Your task to perform on an android device: Go to Yahoo.com Image 0: 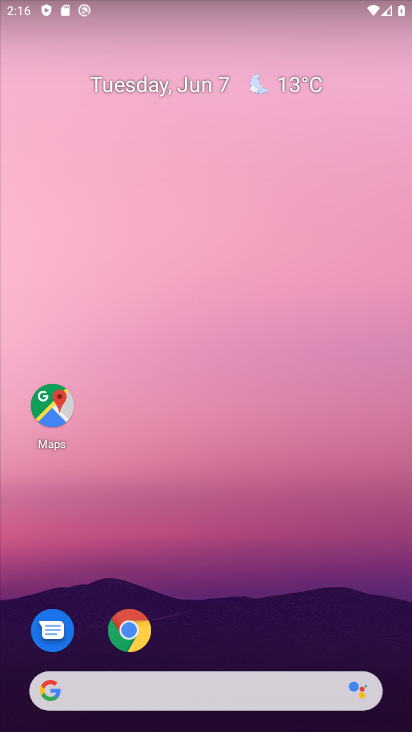
Step 0: click (146, 641)
Your task to perform on an android device: Go to Yahoo.com Image 1: 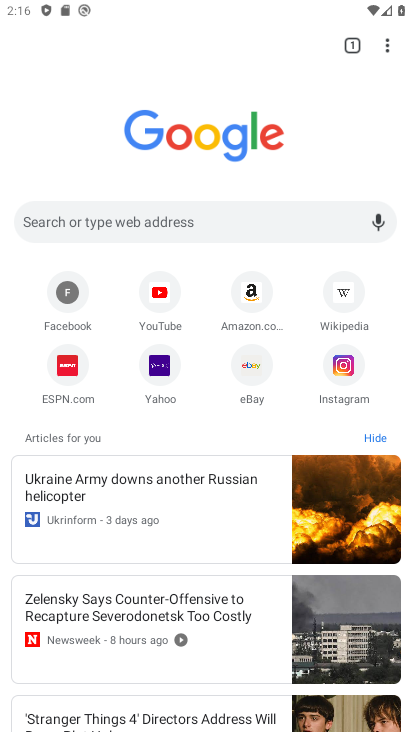
Step 1: click (153, 376)
Your task to perform on an android device: Go to Yahoo.com Image 2: 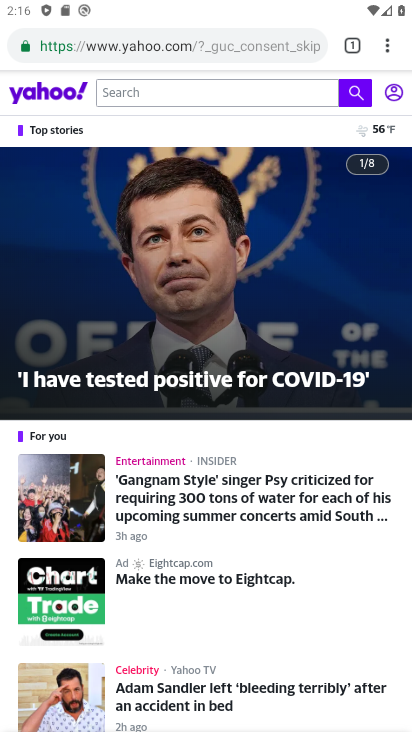
Step 2: task complete